Your task to perform on an android device: open app "Reddit" (install if not already installed), go to login, and select forgot password Image 0: 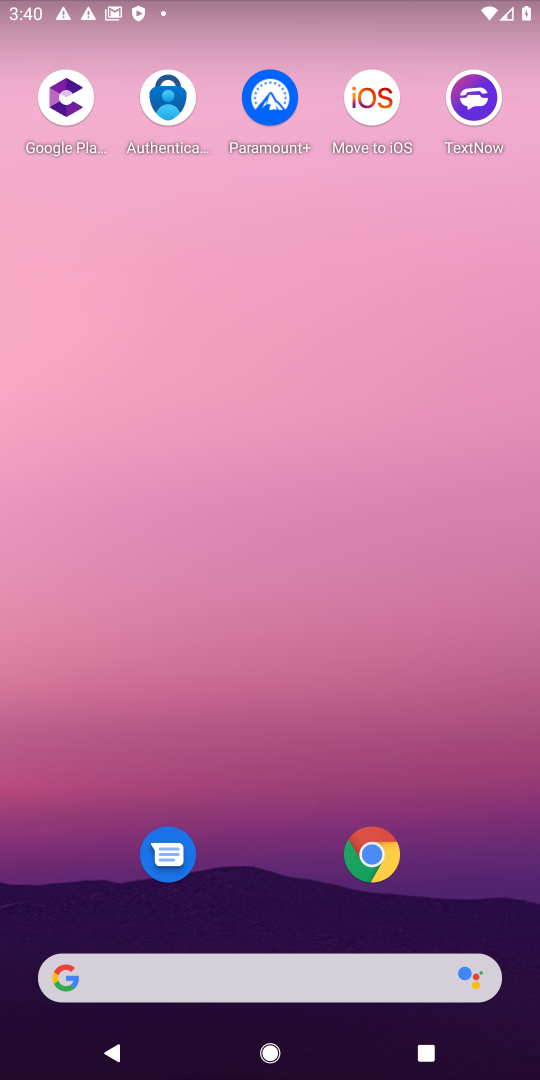
Step 0: drag from (265, 647) to (257, 82)
Your task to perform on an android device: open app "Reddit" (install if not already installed), go to login, and select forgot password Image 1: 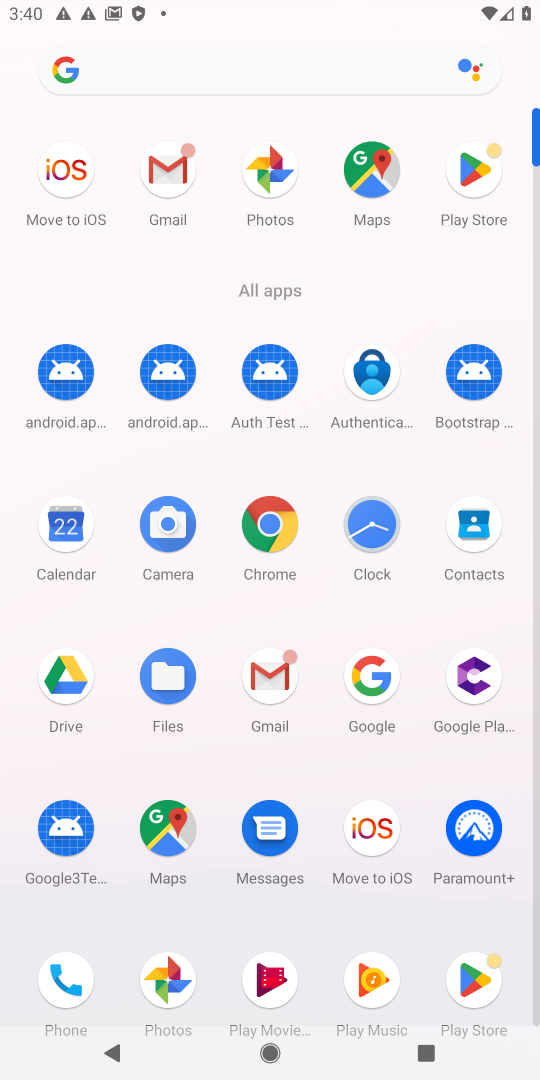
Step 1: click (469, 175)
Your task to perform on an android device: open app "Reddit" (install if not already installed), go to login, and select forgot password Image 2: 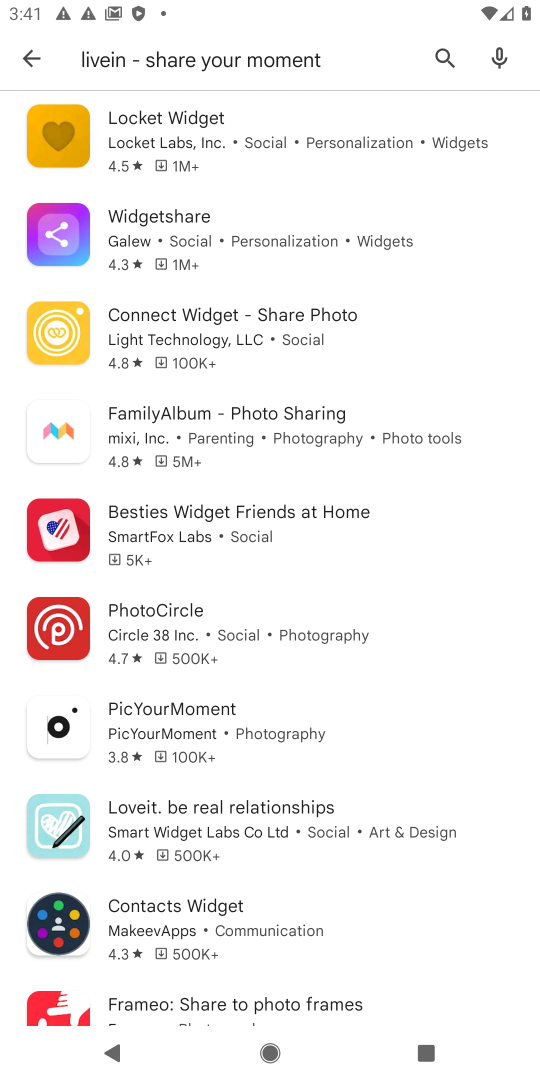
Step 2: click (442, 55)
Your task to perform on an android device: open app "Reddit" (install if not already installed), go to login, and select forgot password Image 3: 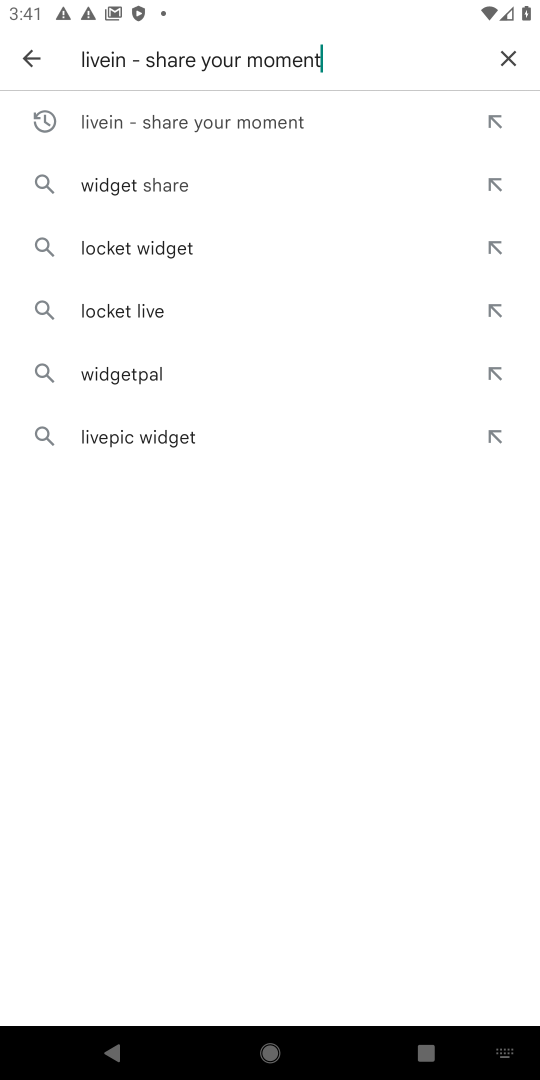
Step 3: click (505, 56)
Your task to perform on an android device: open app "Reddit" (install if not already installed), go to login, and select forgot password Image 4: 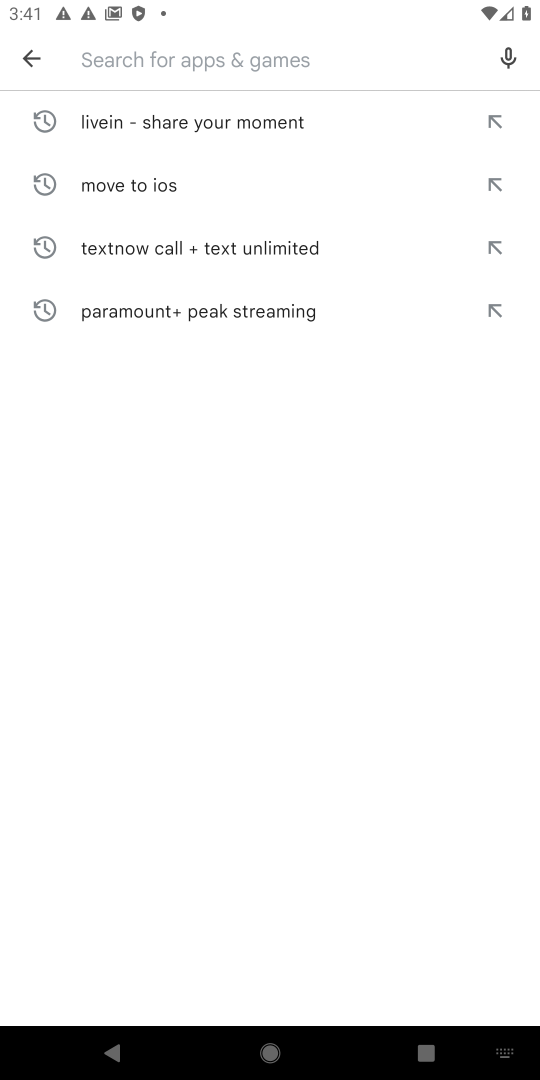
Step 4: type "Reddit"
Your task to perform on an android device: open app "Reddit" (install if not already installed), go to login, and select forgot password Image 5: 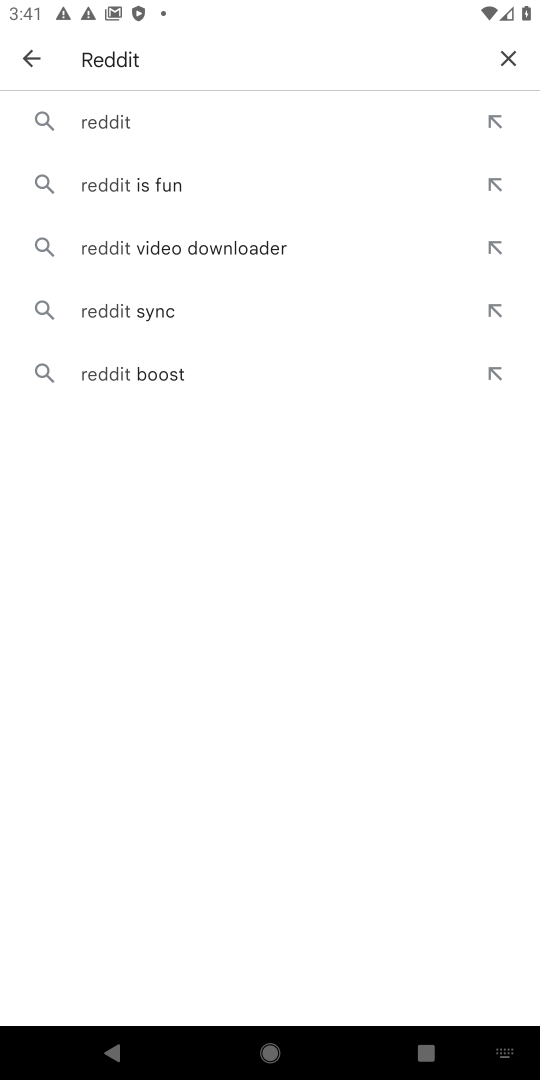
Step 5: click (98, 121)
Your task to perform on an android device: open app "Reddit" (install if not already installed), go to login, and select forgot password Image 6: 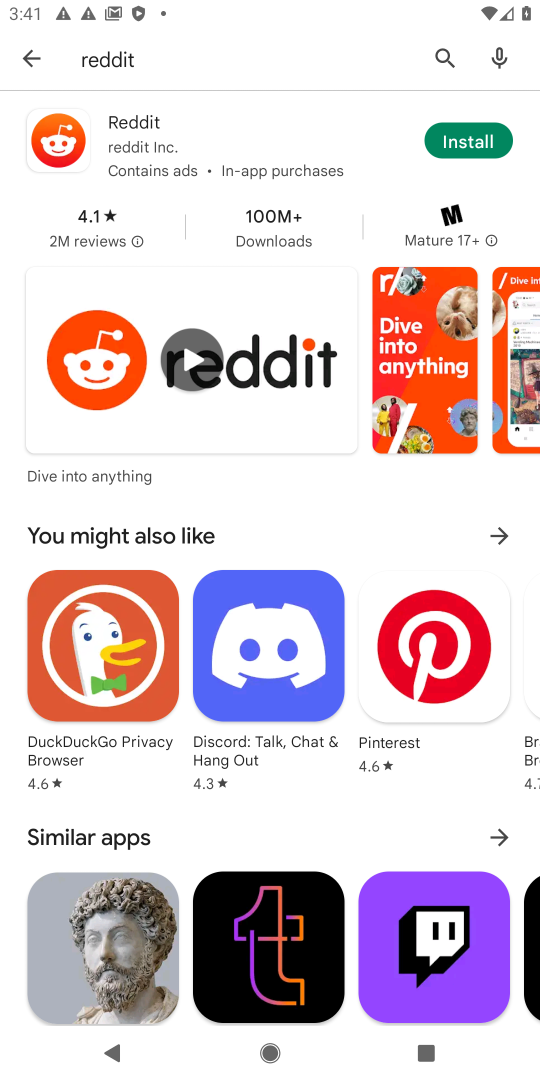
Step 6: click (490, 136)
Your task to perform on an android device: open app "Reddit" (install if not already installed), go to login, and select forgot password Image 7: 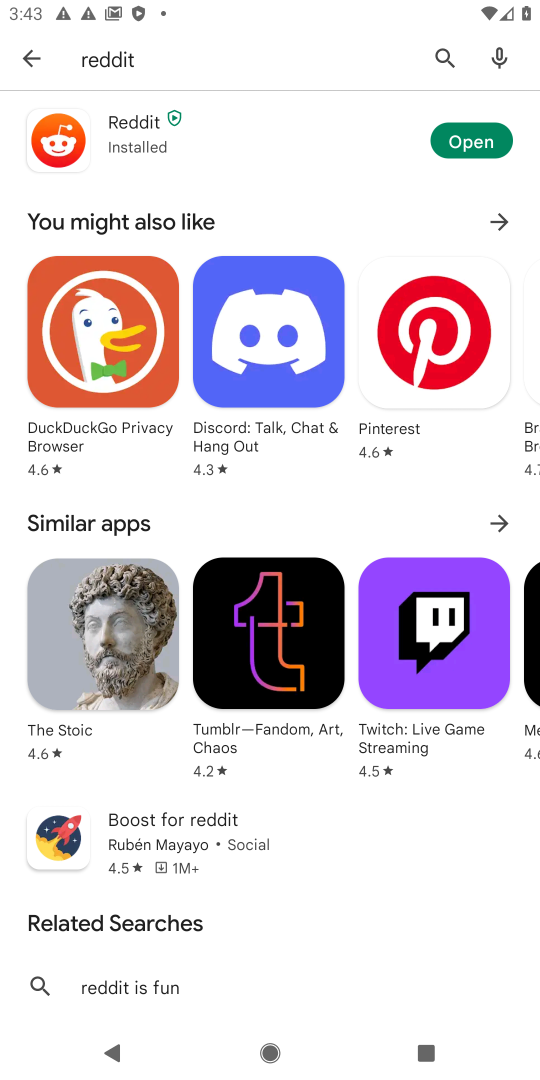
Step 7: click (460, 134)
Your task to perform on an android device: open app "Reddit" (install if not already installed), go to login, and select forgot password Image 8: 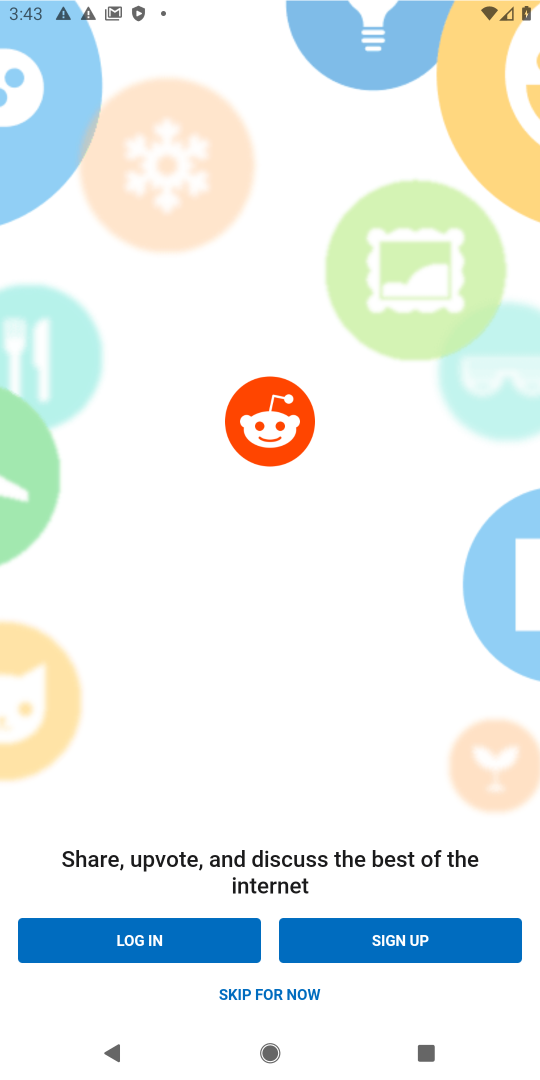
Step 8: click (195, 943)
Your task to perform on an android device: open app "Reddit" (install if not already installed), go to login, and select forgot password Image 9: 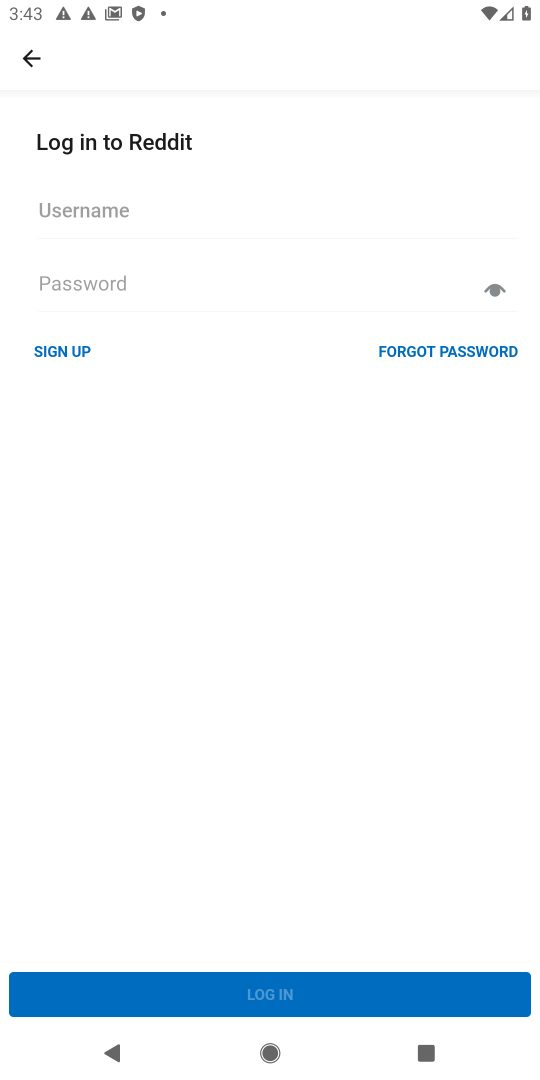
Step 9: click (457, 341)
Your task to perform on an android device: open app "Reddit" (install if not already installed), go to login, and select forgot password Image 10: 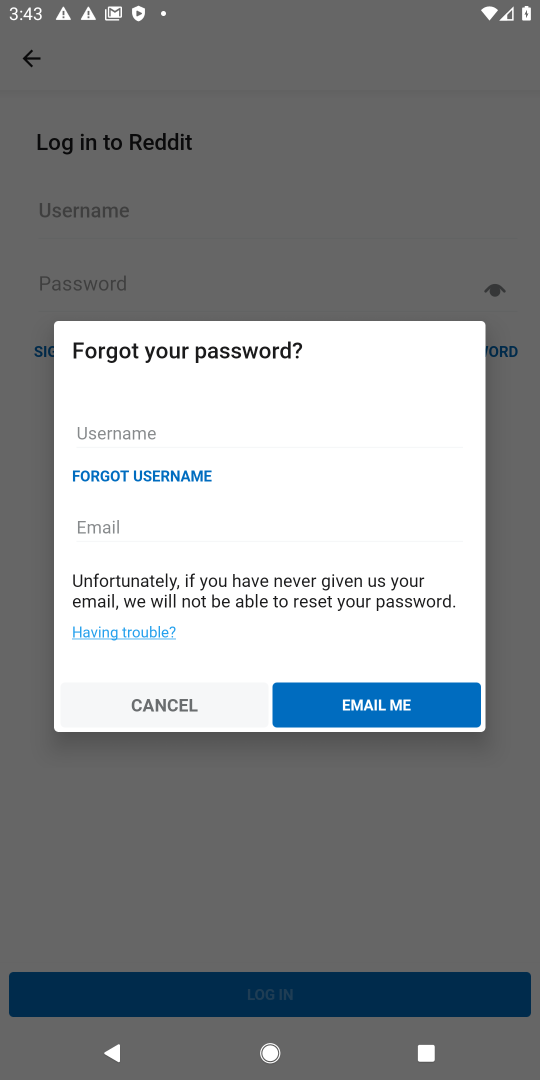
Step 10: task complete